Your task to perform on an android device: make emails show in primary in the gmail app Image 0: 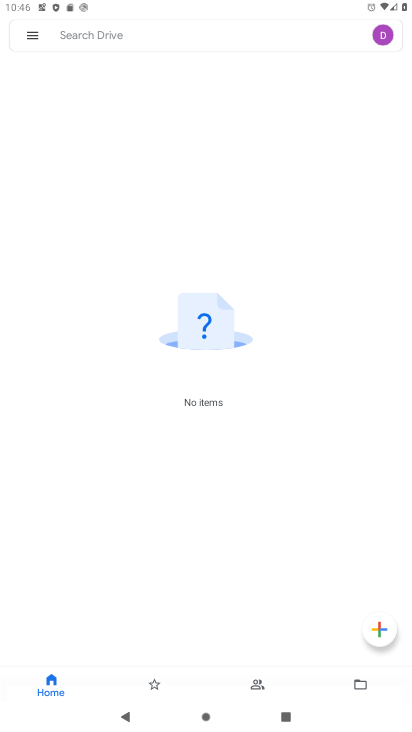
Step 0: press home button
Your task to perform on an android device: make emails show in primary in the gmail app Image 1: 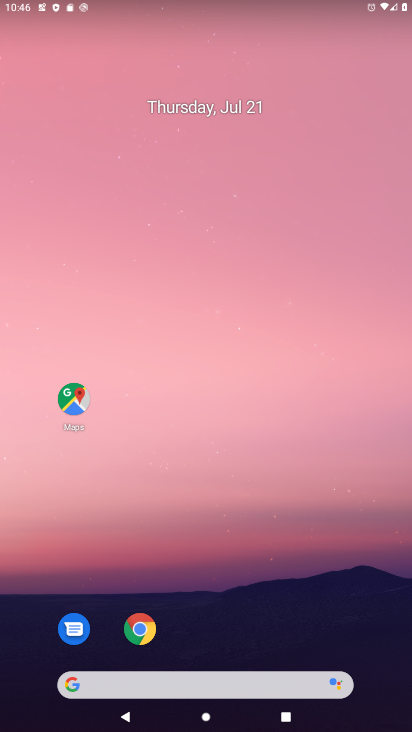
Step 1: drag from (255, 613) to (353, 44)
Your task to perform on an android device: make emails show in primary in the gmail app Image 2: 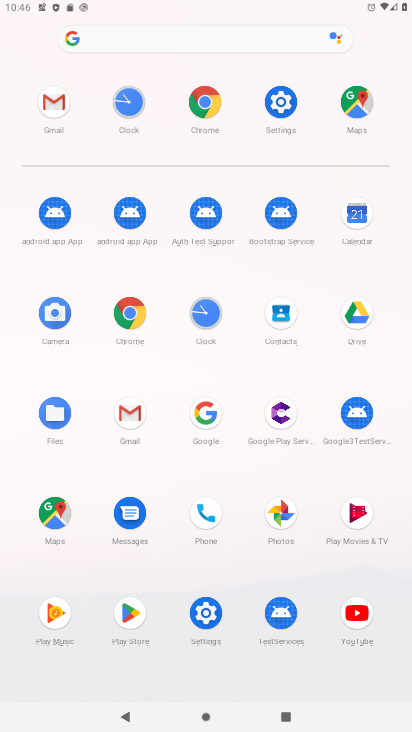
Step 2: click (133, 403)
Your task to perform on an android device: make emails show in primary in the gmail app Image 3: 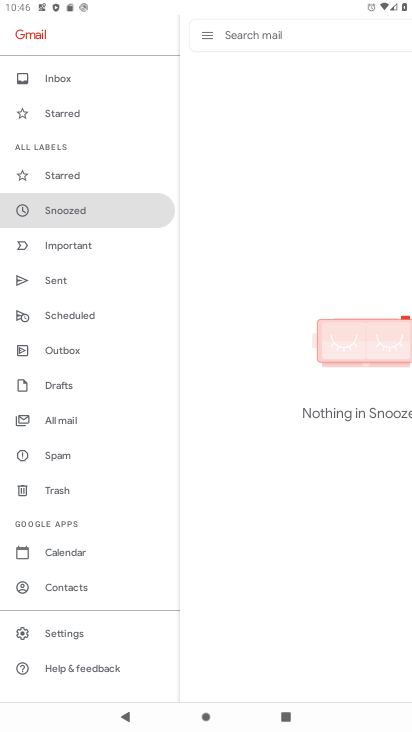
Step 3: click (58, 72)
Your task to perform on an android device: make emails show in primary in the gmail app Image 4: 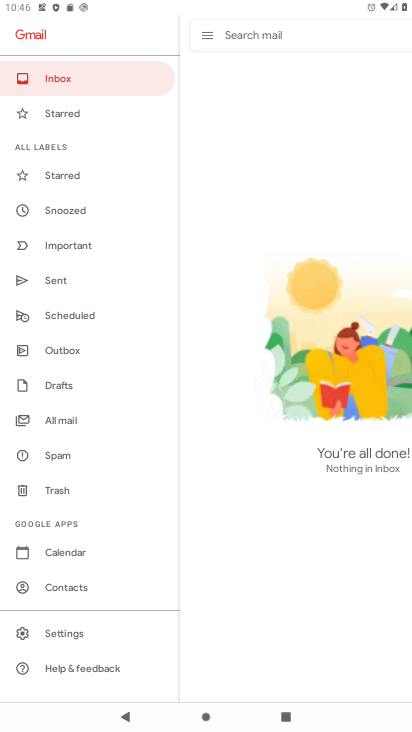
Step 4: task complete